Your task to perform on an android device: Turn off the flashlight Image 0: 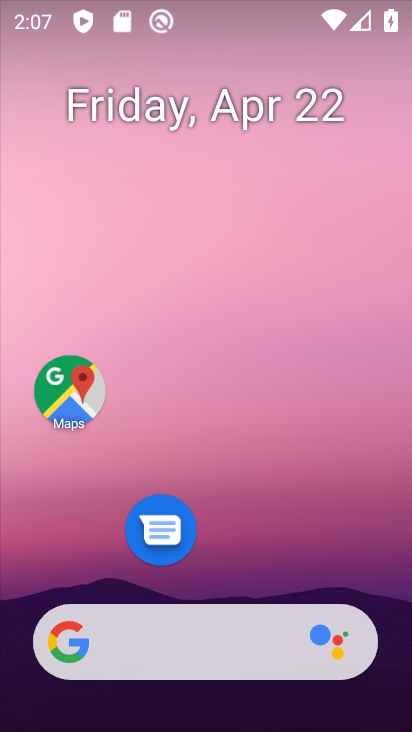
Step 0: drag from (277, 468) to (275, 7)
Your task to perform on an android device: Turn off the flashlight Image 1: 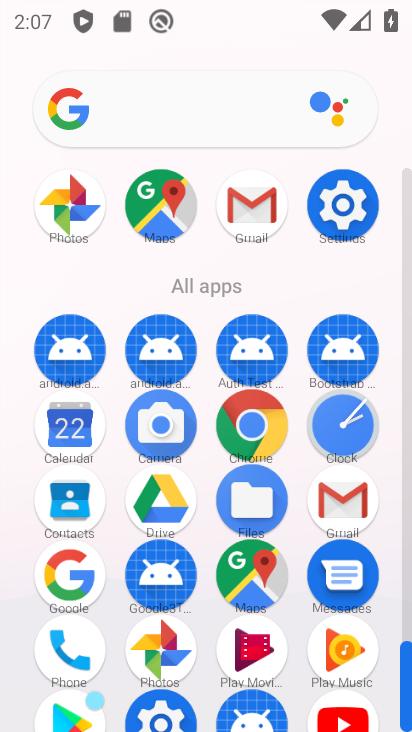
Step 1: click (346, 210)
Your task to perform on an android device: Turn off the flashlight Image 2: 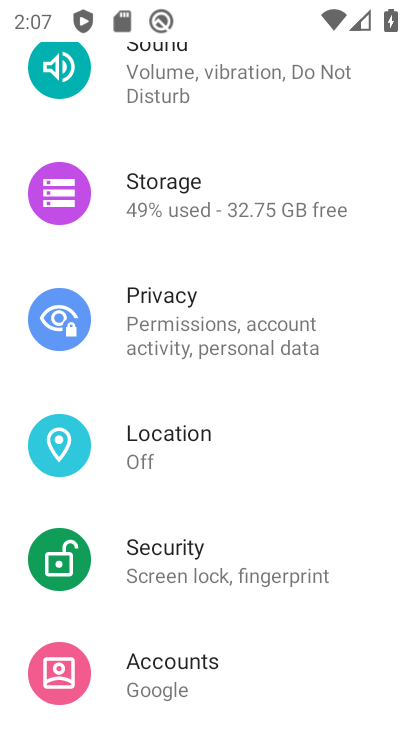
Step 2: click (161, 540)
Your task to perform on an android device: Turn off the flashlight Image 3: 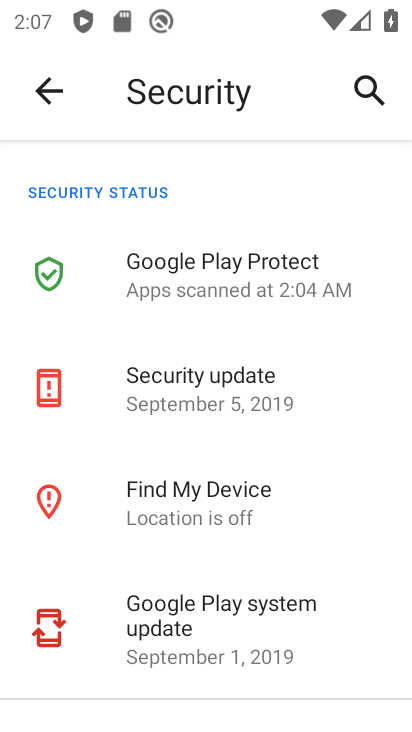
Step 3: task complete